Your task to perform on an android device: change keyboard looks Image 0: 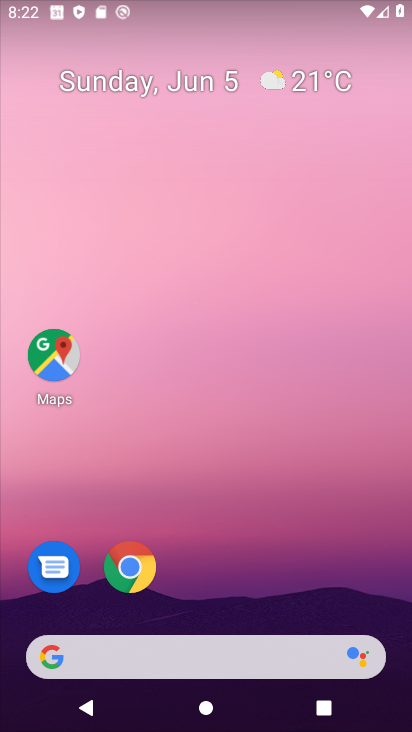
Step 0: drag from (207, 610) to (195, 304)
Your task to perform on an android device: change keyboard looks Image 1: 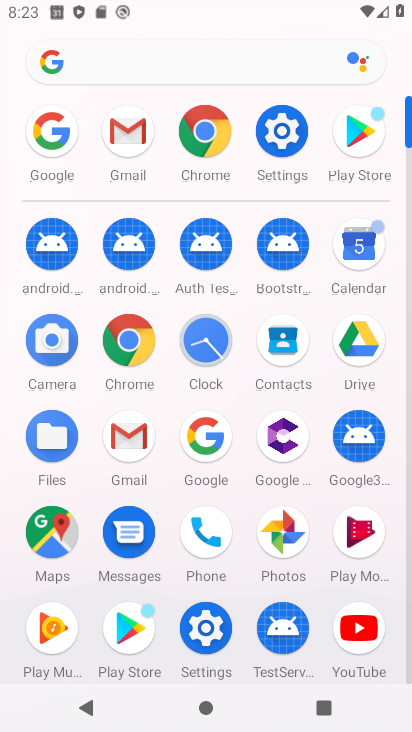
Step 1: click (213, 636)
Your task to perform on an android device: change keyboard looks Image 2: 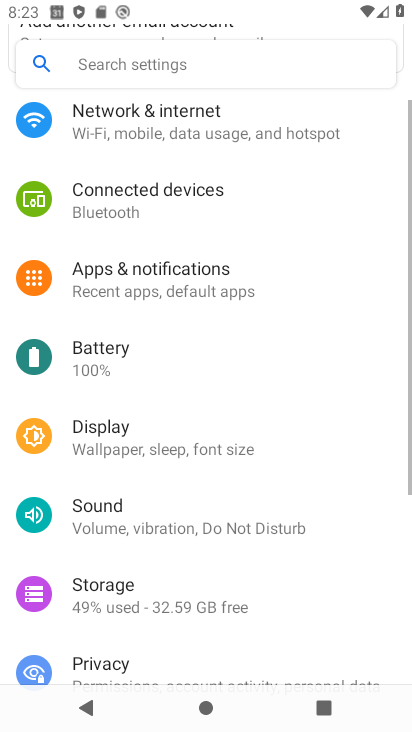
Step 2: drag from (185, 654) to (184, 301)
Your task to perform on an android device: change keyboard looks Image 3: 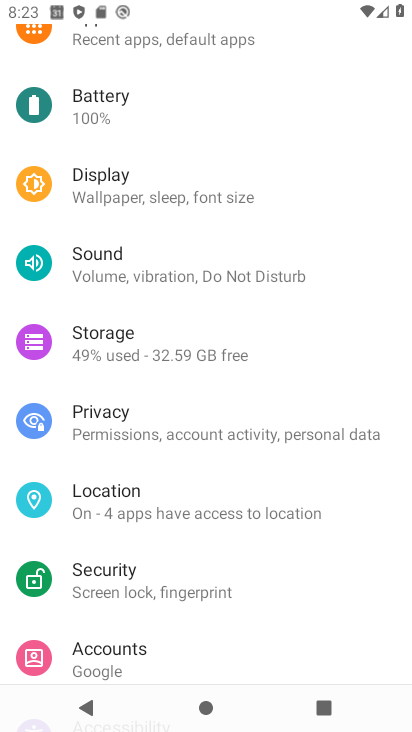
Step 3: drag from (123, 662) to (123, 346)
Your task to perform on an android device: change keyboard looks Image 4: 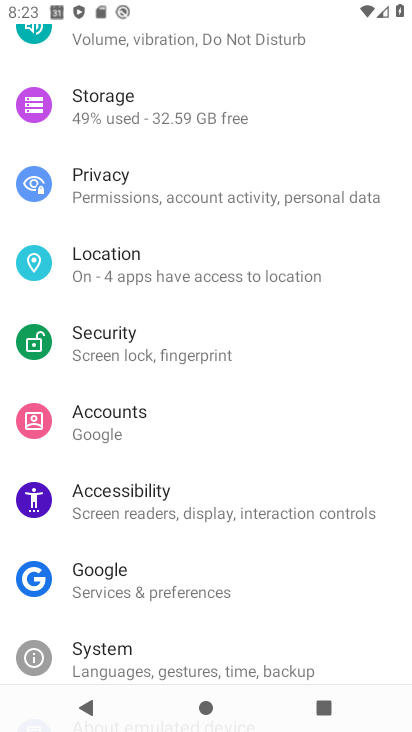
Step 4: drag from (131, 654) to (153, 356)
Your task to perform on an android device: change keyboard looks Image 5: 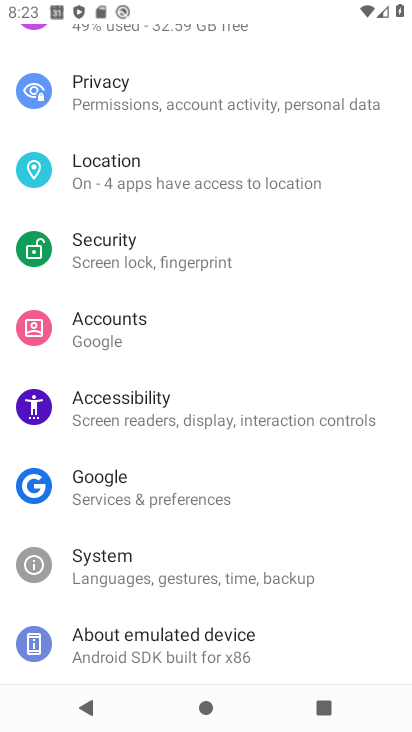
Step 5: click (117, 560)
Your task to perform on an android device: change keyboard looks Image 6: 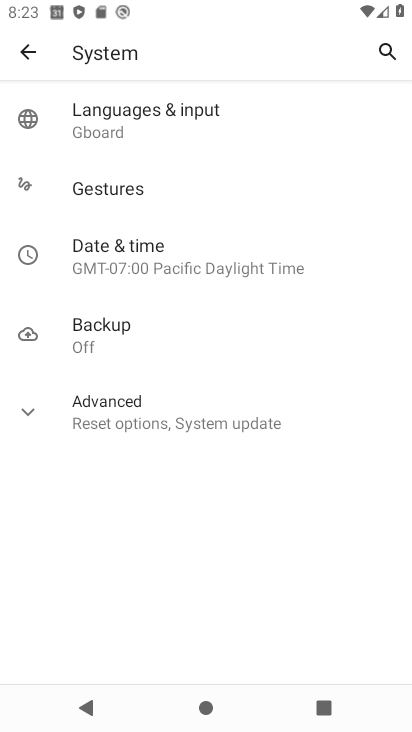
Step 6: click (131, 112)
Your task to perform on an android device: change keyboard looks Image 7: 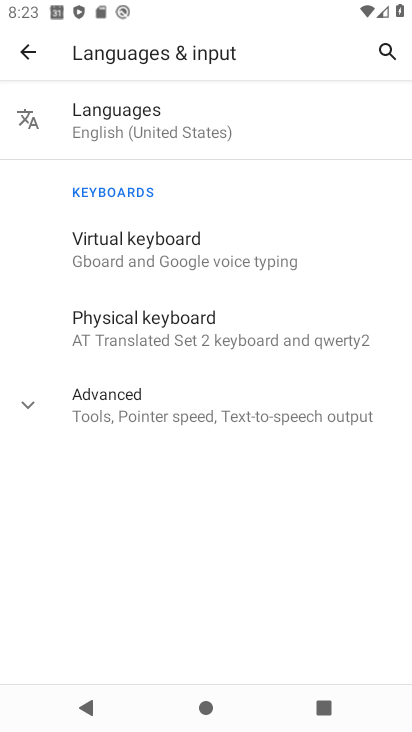
Step 7: click (141, 243)
Your task to perform on an android device: change keyboard looks Image 8: 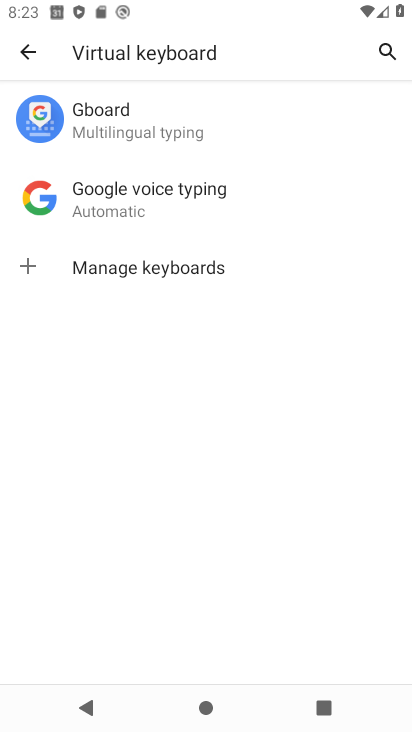
Step 8: click (114, 125)
Your task to perform on an android device: change keyboard looks Image 9: 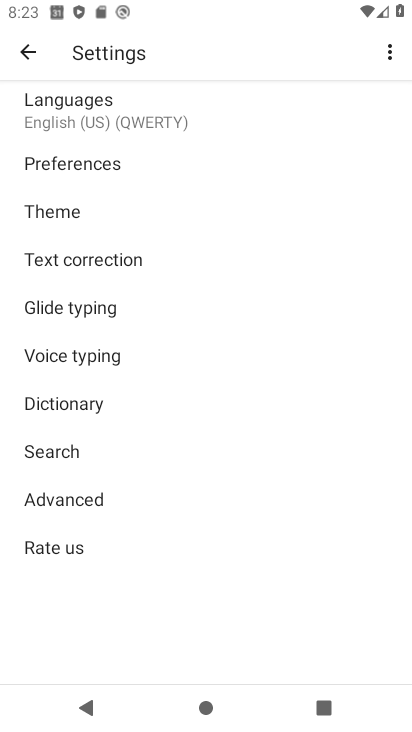
Step 9: click (81, 208)
Your task to perform on an android device: change keyboard looks Image 10: 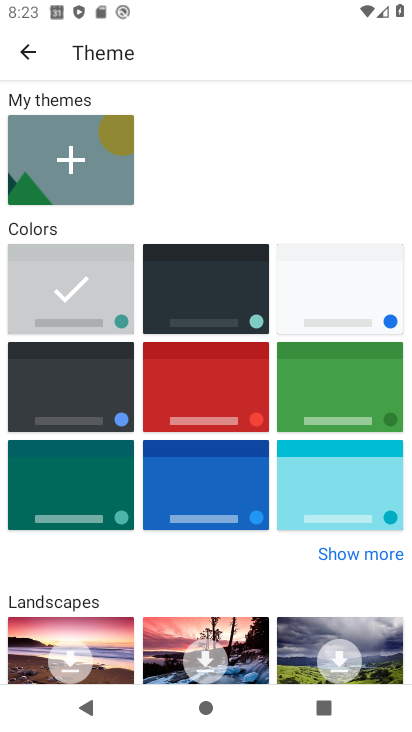
Step 10: click (207, 392)
Your task to perform on an android device: change keyboard looks Image 11: 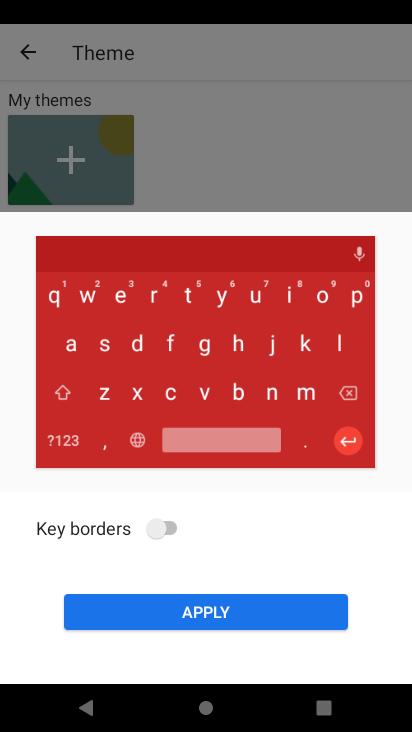
Step 11: click (176, 619)
Your task to perform on an android device: change keyboard looks Image 12: 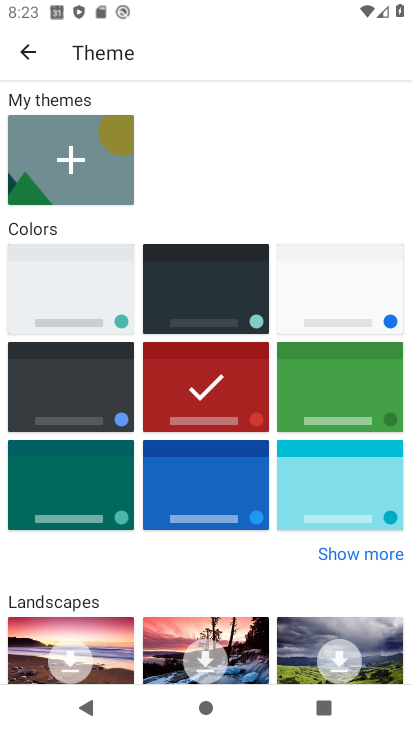
Step 12: task complete